Your task to perform on an android device: Is it going to rain tomorrow? Image 0: 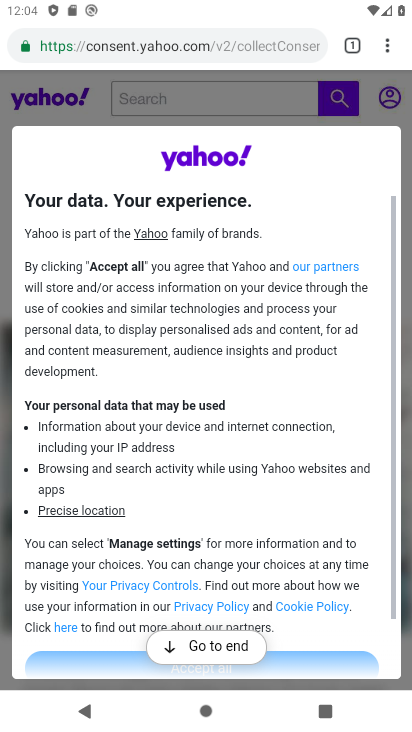
Step 0: click (188, 47)
Your task to perform on an android device: Is it going to rain tomorrow? Image 1: 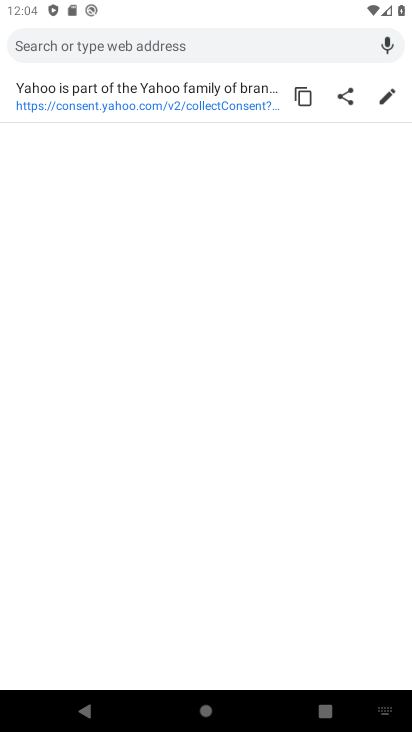
Step 1: type "Is it going to rain tomorrow?"
Your task to perform on an android device: Is it going to rain tomorrow? Image 2: 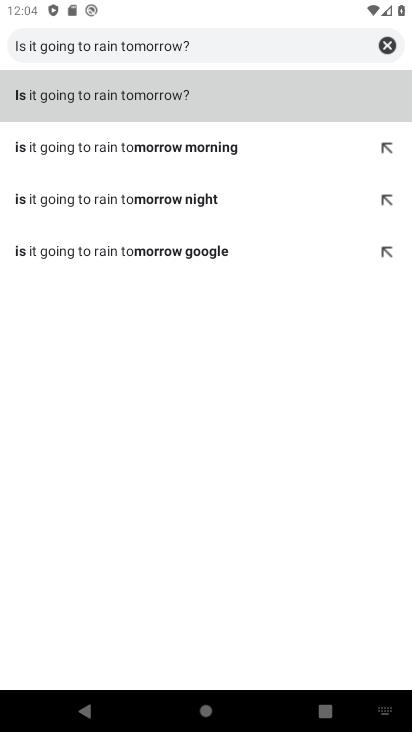
Step 2: click (204, 101)
Your task to perform on an android device: Is it going to rain tomorrow? Image 3: 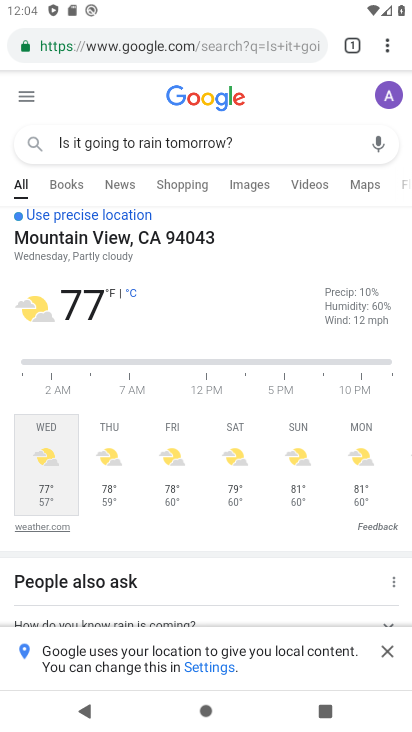
Step 3: task complete